Your task to perform on an android device: Open settings on Google Maps Image 0: 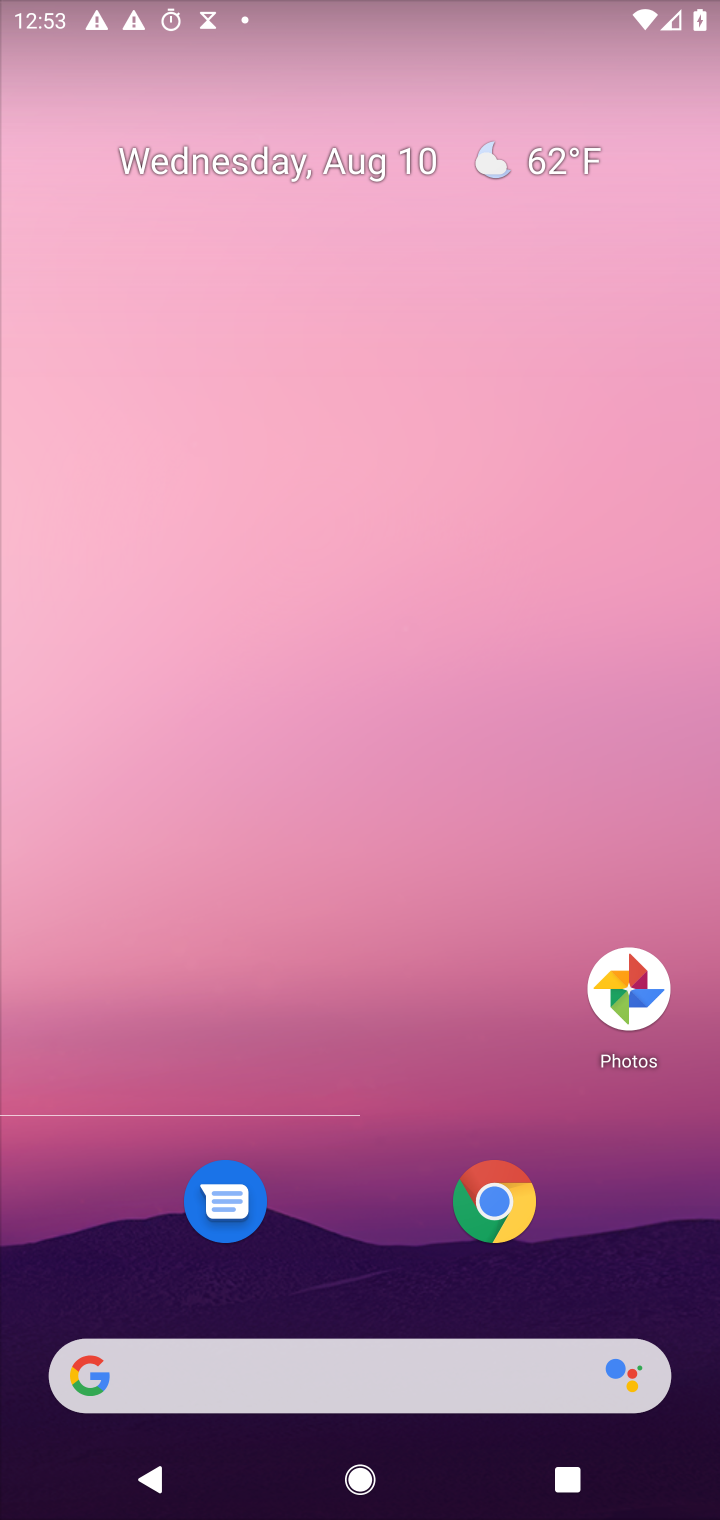
Step 0: press home button
Your task to perform on an android device: Open settings on Google Maps Image 1: 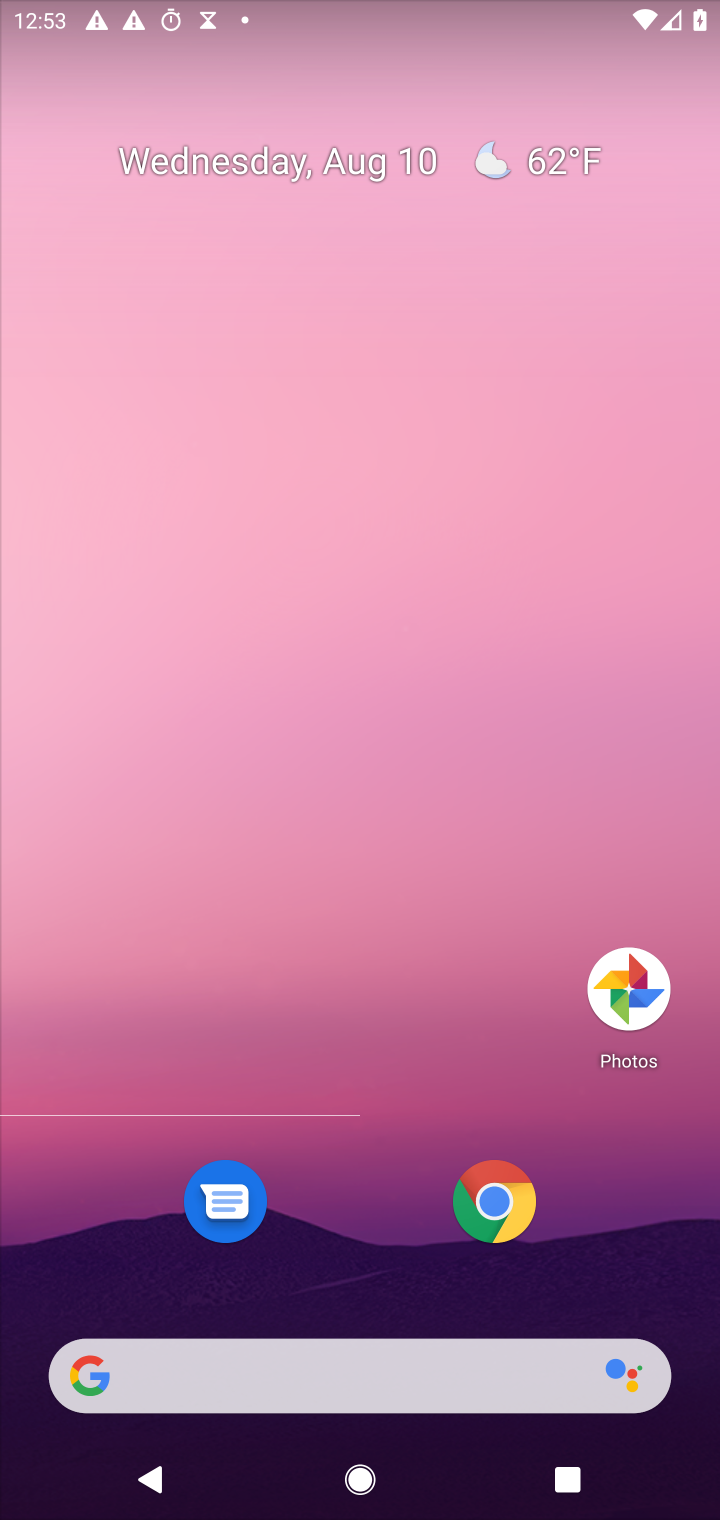
Step 1: drag from (366, 990) to (414, 196)
Your task to perform on an android device: Open settings on Google Maps Image 2: 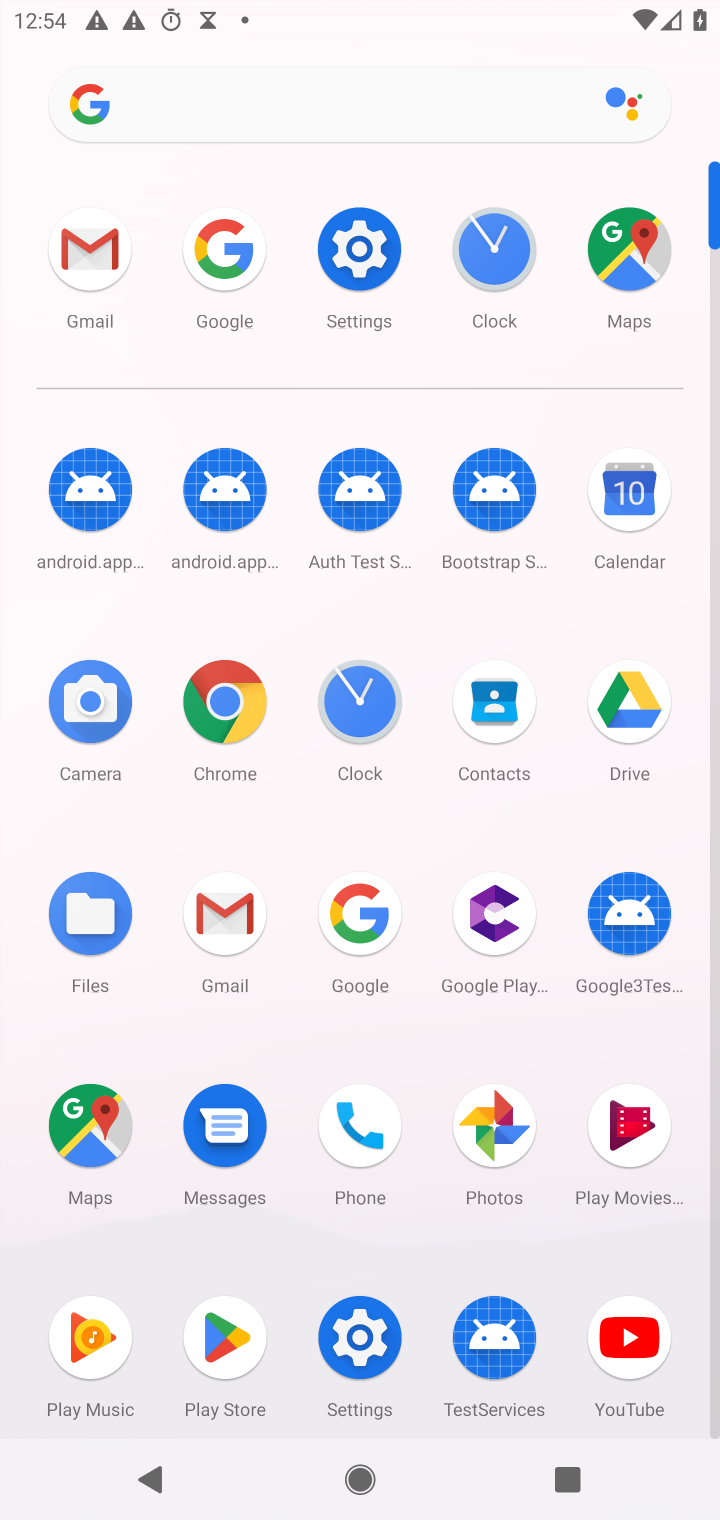
Step 2: click (638, 266)
Your task to perform on an android device: Open settings on Google Maps Image 3: 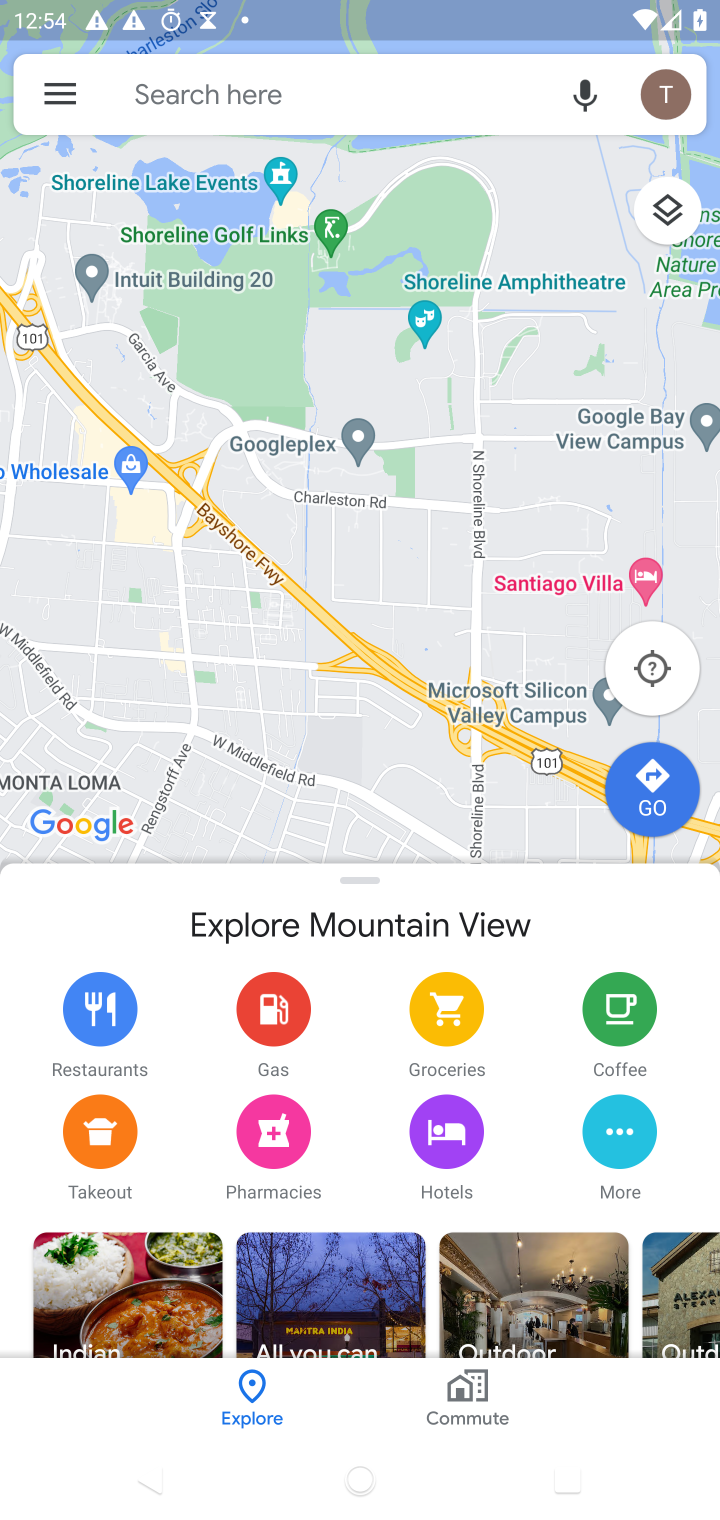
Step 3: click (66, 89)
Your task to perform on an android device: Open settings on Google Maps Image 4: 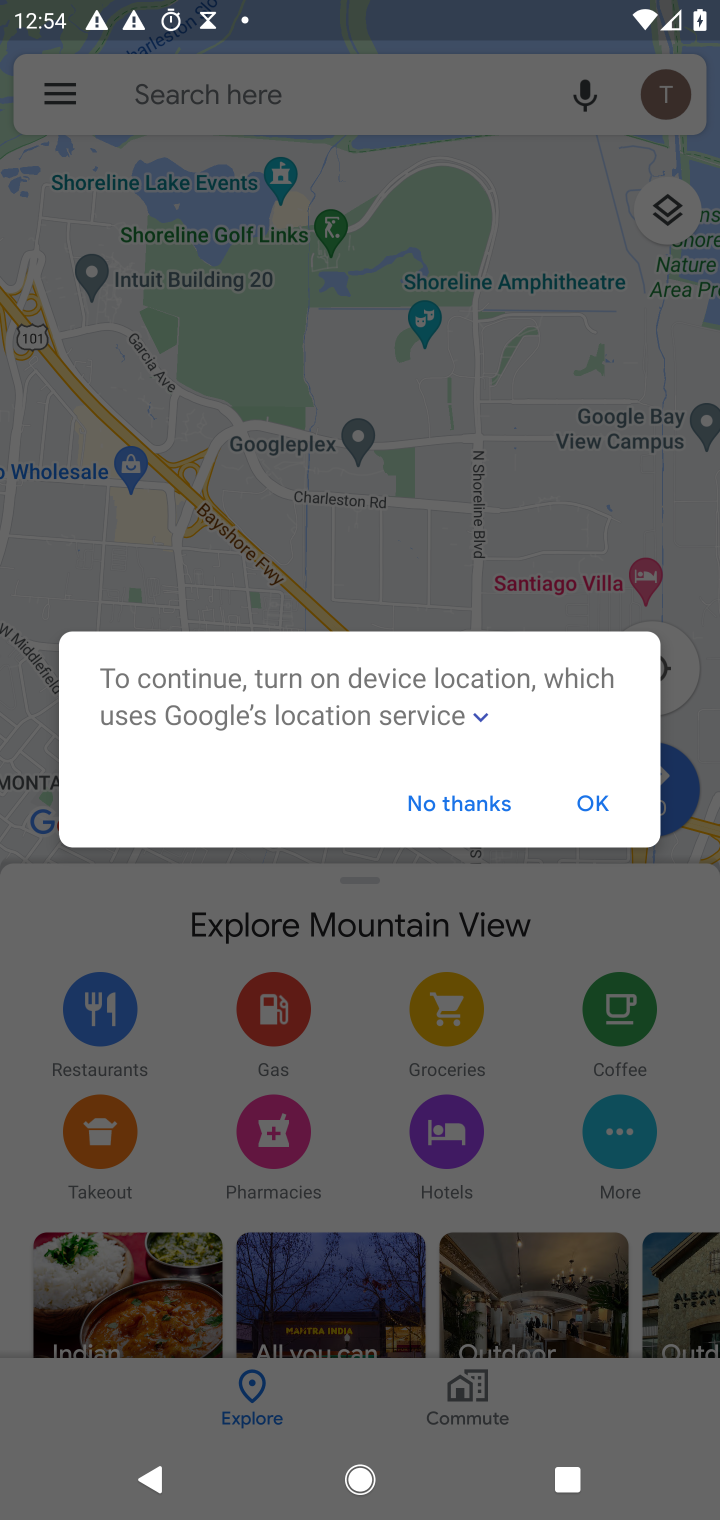
Step 4: click (489, 810)
Your task to perform on an android device: Open settings on Google Maps Image 5: 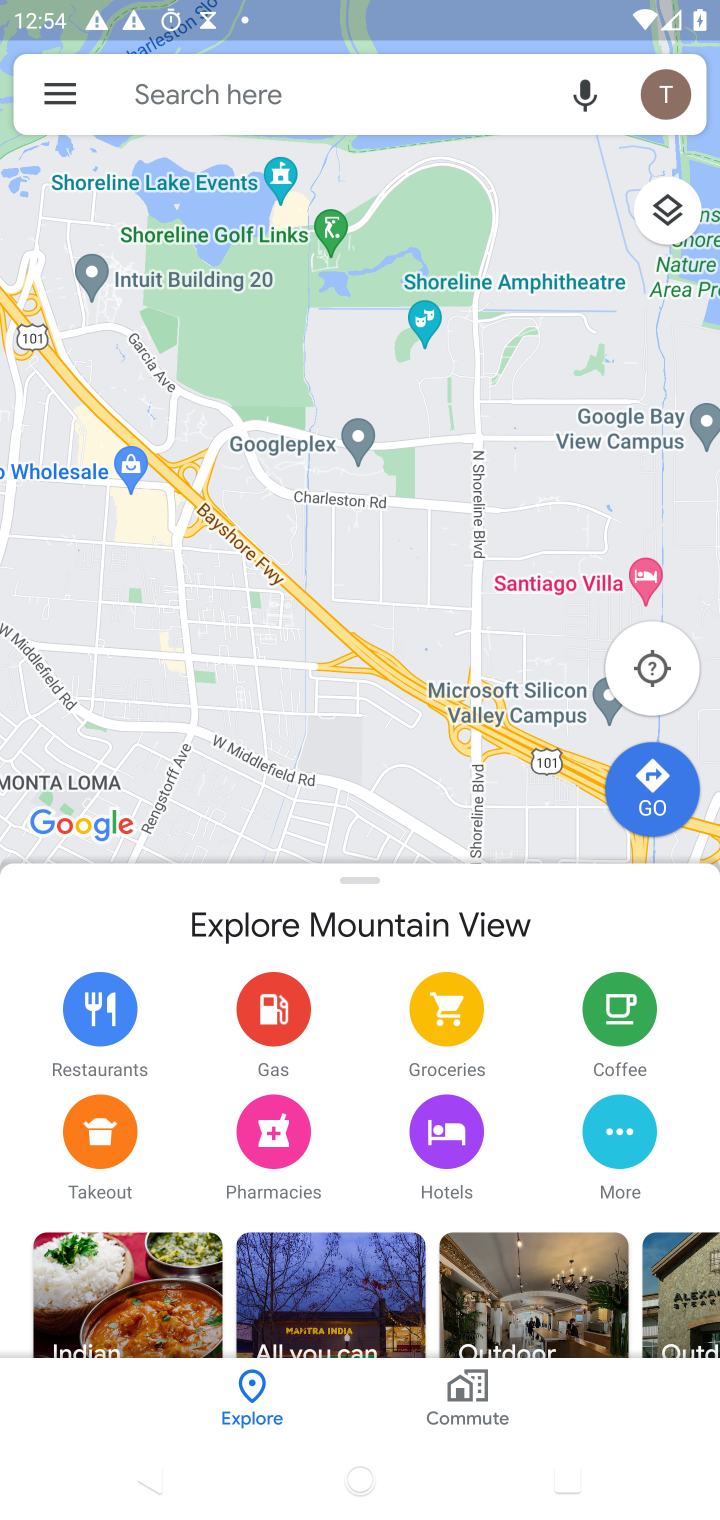
Step 5: click (65, 87)
Your task to perform on an android device: Open settings on Google Maps Image 6: 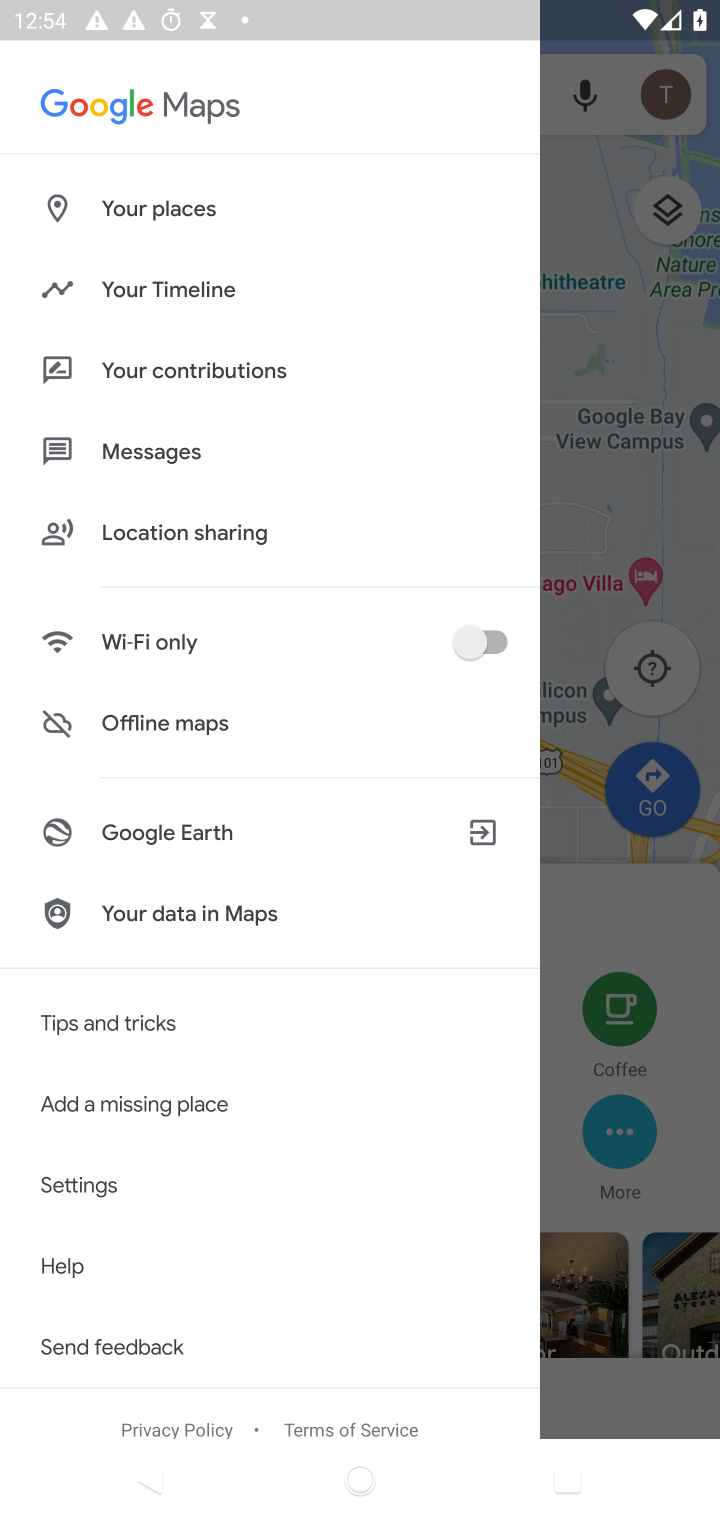
Step 6: click (90, 1175)
Your task to perform on an android device: Open settings on Google Maps Image 7: 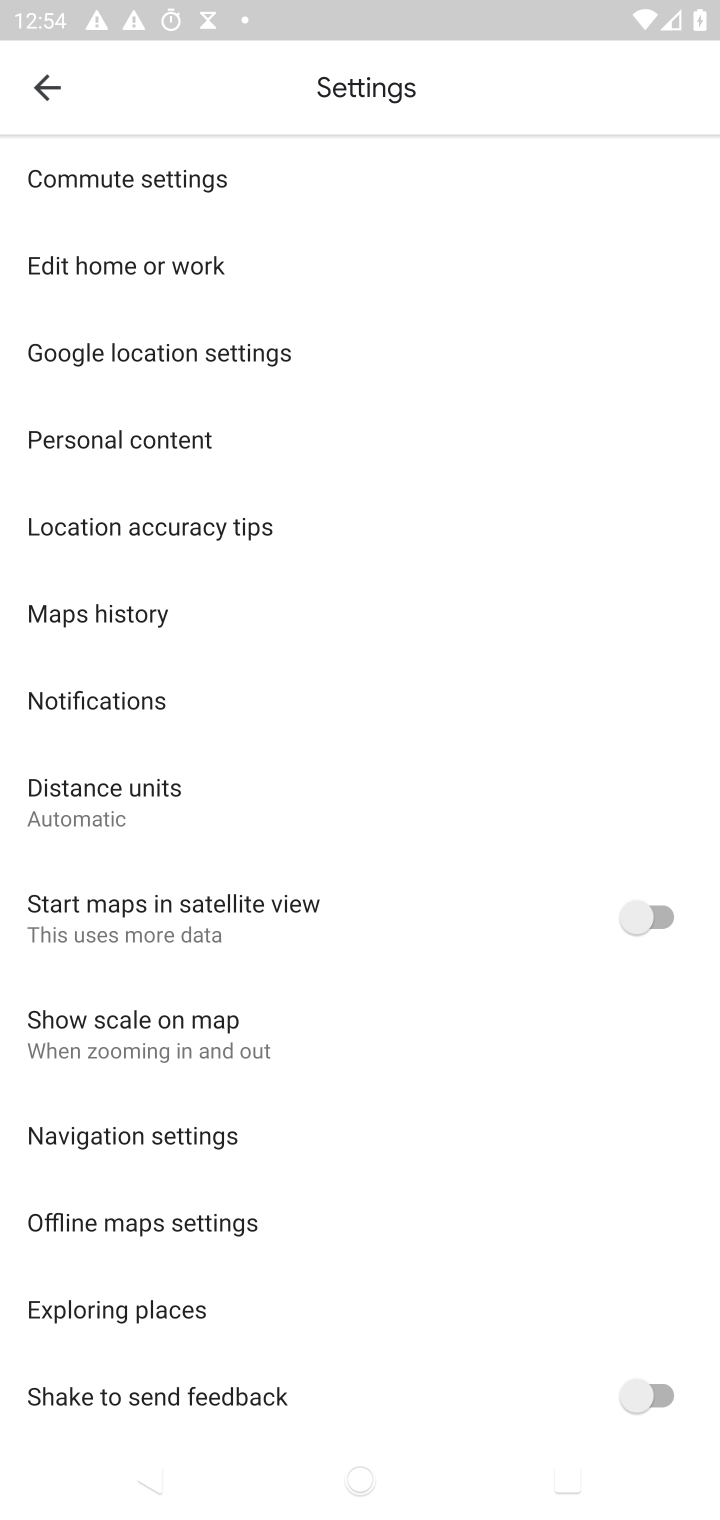
Step 7: task complete